Your task to perform on an android device: Empty the shopping cart on walmart. Search for apple airpods pro on walmart, select the first entry, and add it to the cart. Image 0: 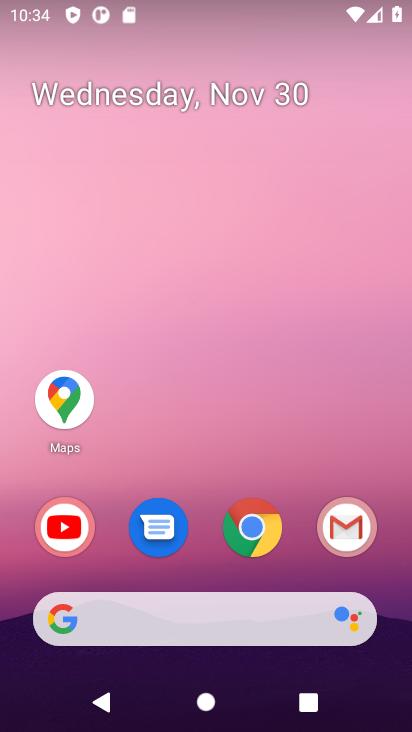
Step 0: click (250, 533)
Your task to perform on an android device: Empty the shopping cart on walmart. Search for apple airpods pro on walmart, select the first entry, and add it to the cart. Image 1: 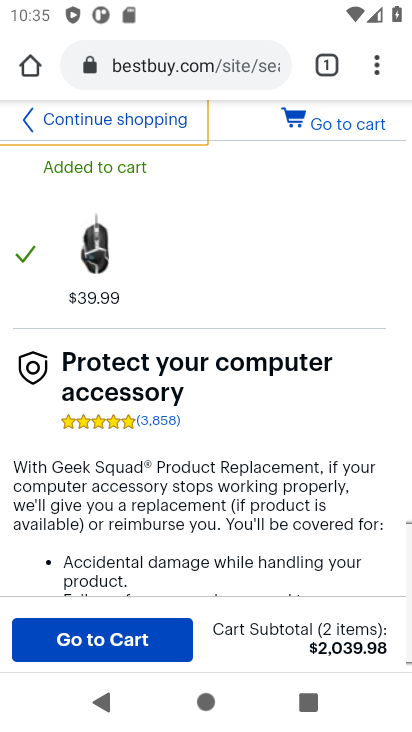
Step 1: click (170, 72)
Your task to perform on an android device: Empty the shopping cart on walmart. Search for apple airpods pro on walmart, select the first entry, and add it to the cart. Image 2: 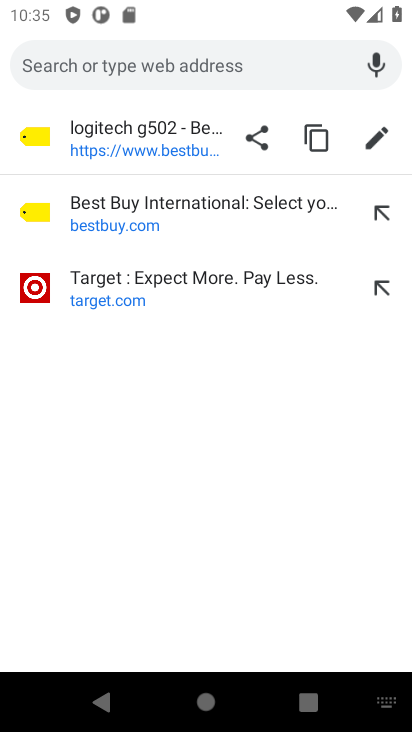
Step 2: type "walmart.com"
Your task to perform on an android device: Empty the shopping cart on walmart. Search for apple airpods pro on walmart, select the first entry, and add it to the cart. Image 3: 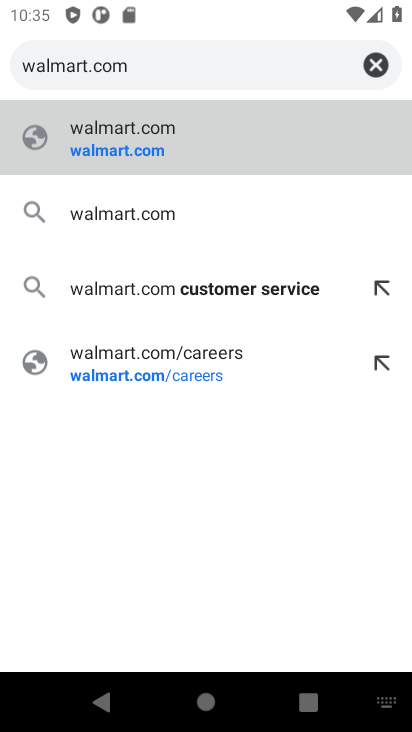
Step 3: click (96, 158)
Your task to perform on an android device: Empty the shopping cart on walmart. Search for apple airpods pro on walmart, select the first entry, and add it to the cart. Image 4: 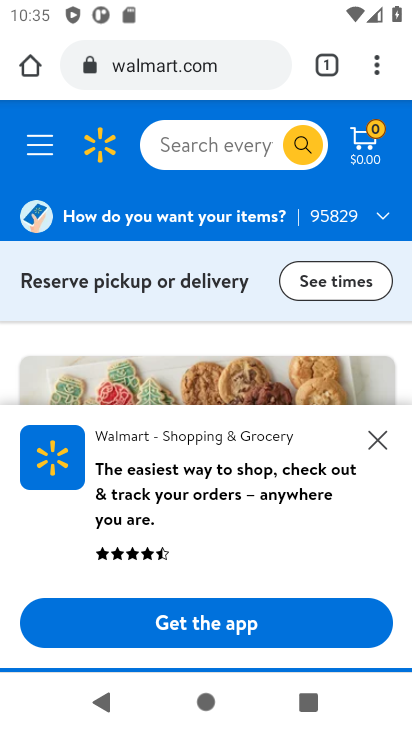
Step 4: click (353, 135)
Your task to perform on an android device: Empty the shopping cart on walmart. Search for apple airpods pro on walmart, select the first entry, and add it to the cart. Image 5: 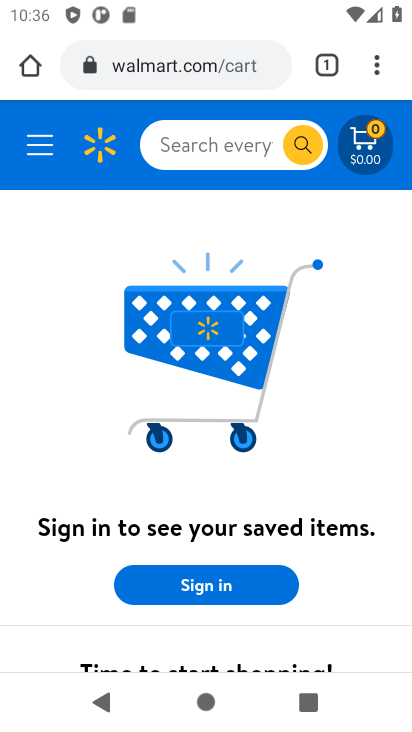
Step 5: click (165, 142)
Your task to perform on an android device: Empty the shopping cart on walmart. Search for apple airpods pro on walmart, select the first entry, and add it to the cart. Image 6: 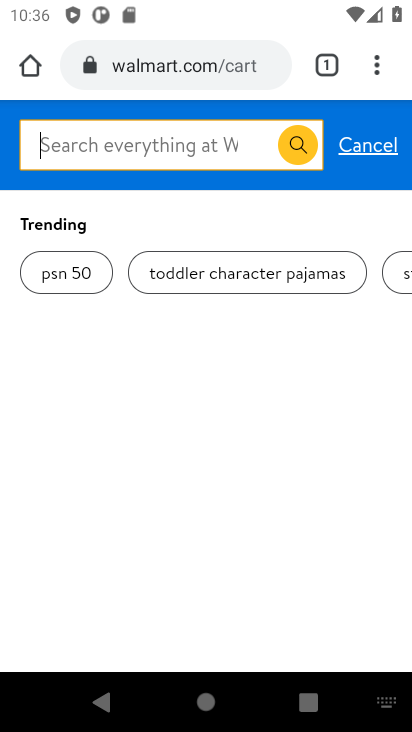
Step 6: type "apple airpods pro"
Your task to perform on an android device: Empty the shopping cart on walmart. Search for apple airpods pro on walmart, select the first entry, and add it to the cart. Image 7: 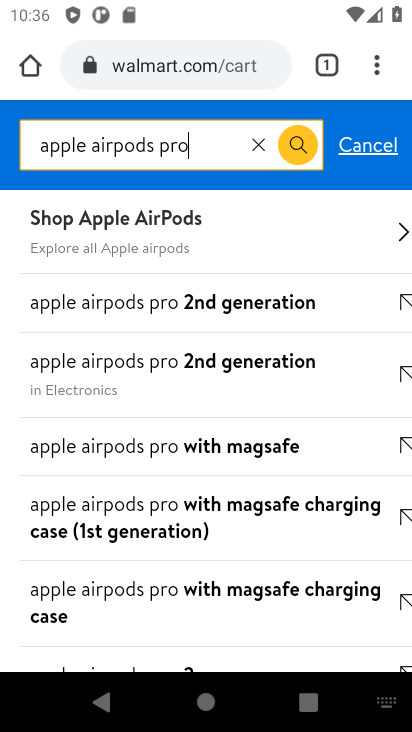
Step 7: click (301, 146)
Your task to perform on an android device: Empty the shopping cart on walmart. Search for apple airpods pro on walmart, select the first entry, and add it to the cart. Image 8: 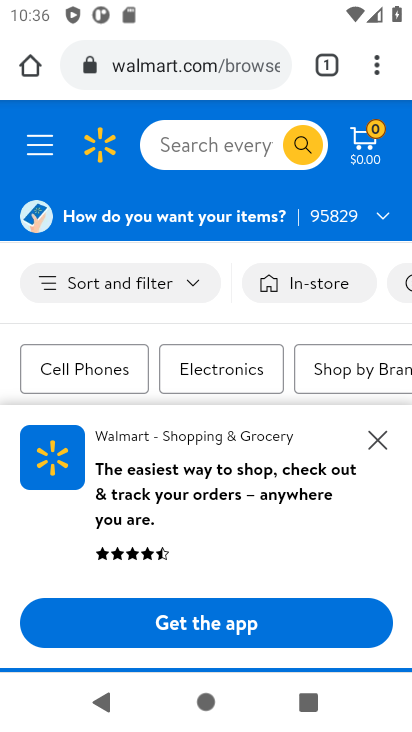
Step 8: click (378, 437)
Your task to perform on an android device: Empty the shopping cart on walmart. Search for apple airpods pro on walmart, select the first entry, and add it to the cart. Image 9: 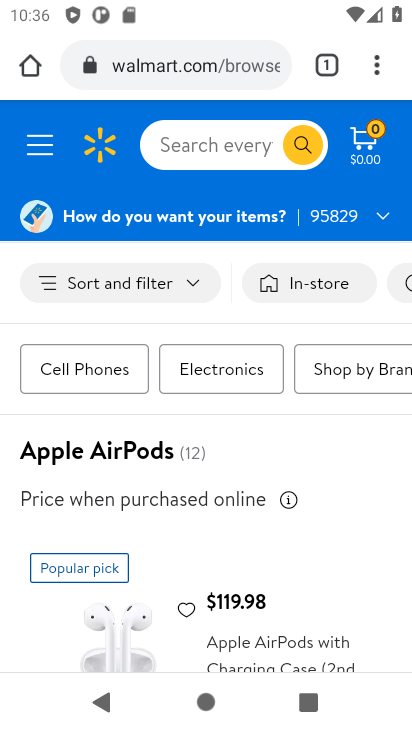
Step 9: task complete